Your task to perform on an android device: change your default location settings in chrome Image 0: 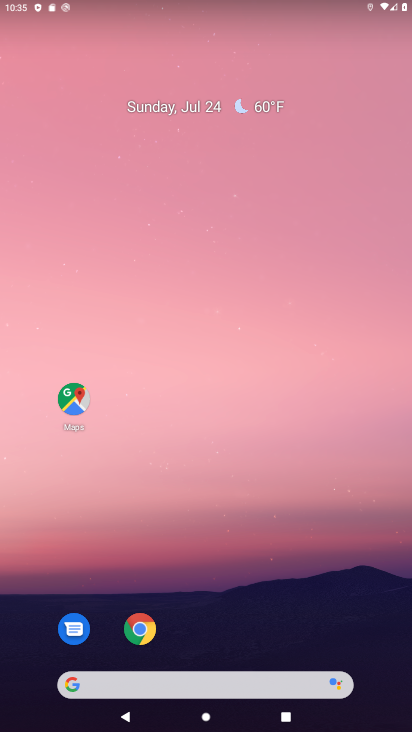
Step 0: click (251, 279)
Your task to perform on an android device: change your default location settings in chrome Image 1: 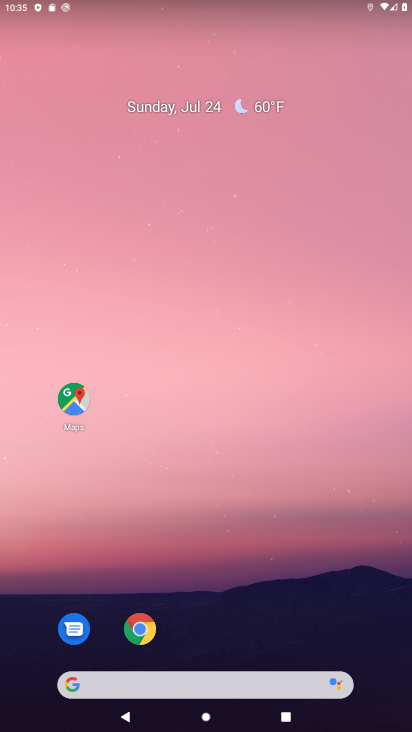
Step 1: drag from (239, 594) to (179, 234)
Your task to perform on an android device: change your default location settings in chrome Image 2: 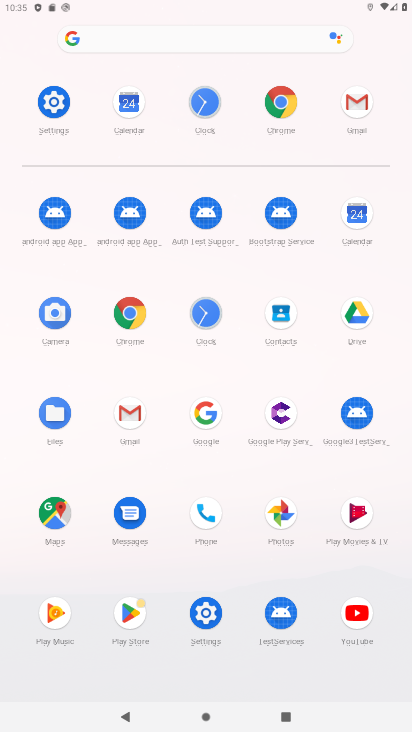
Step 2: click (136, 307)
Your task to perform on an android device: change your default location settings in chrome Image 3: 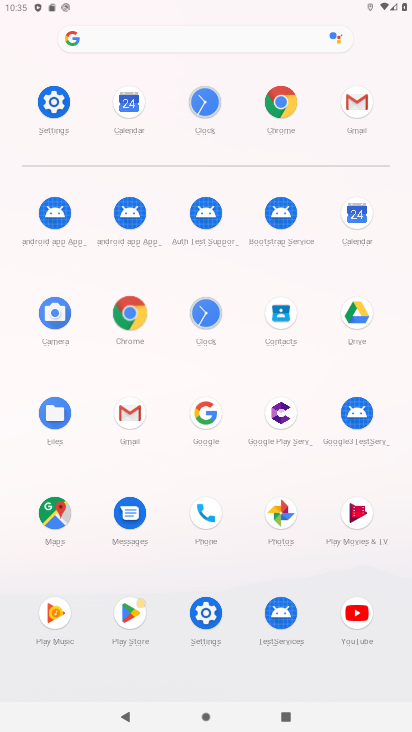
Step 3: click (135, 307)
Your task to perform on an android device: change your default location settings in chrome Image 4: 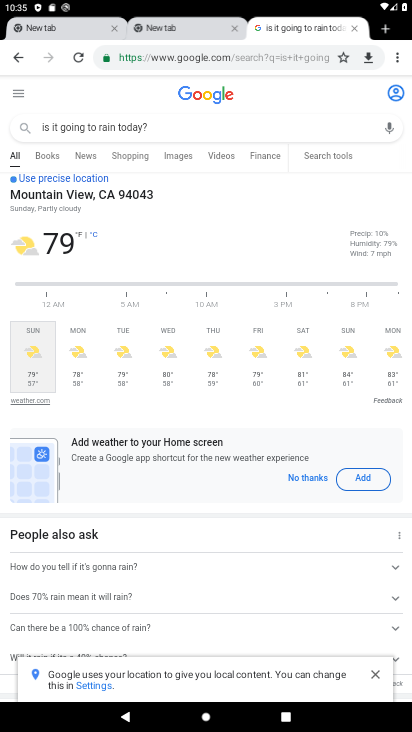
Step 4: click (15, 56)
Your task to perform on an android device: change your default location settings in chrome Image 5: 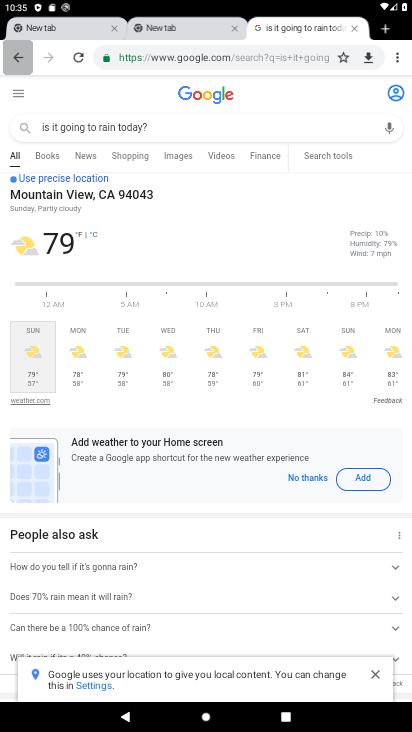
Step 5: click (15, 56)
Your task to perform on an android device: change your default location settings in chrome Image 6: 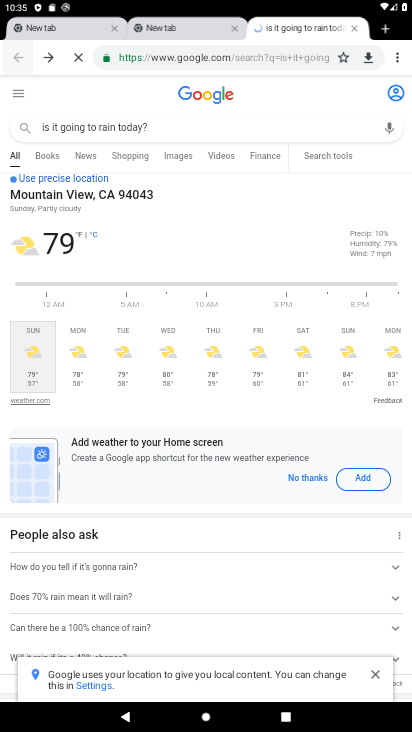
Step 6: click (14, 61)
Your task to perform on an android device: change your default location settings in chrome Image 7: 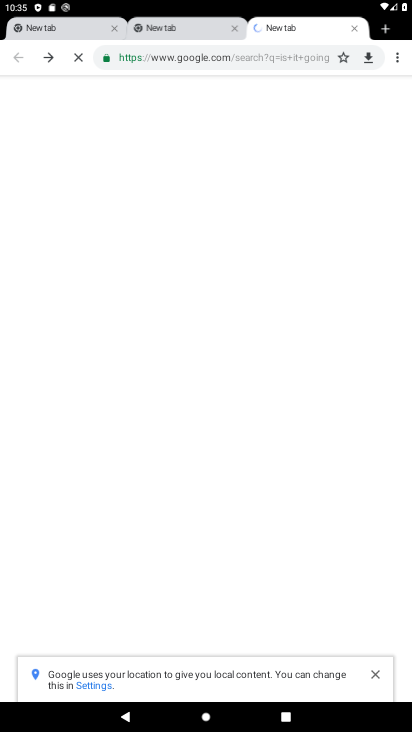
Step 7: click (21, 63)
Your task to perform on an android device: change your default location settings in chrome Image 8: 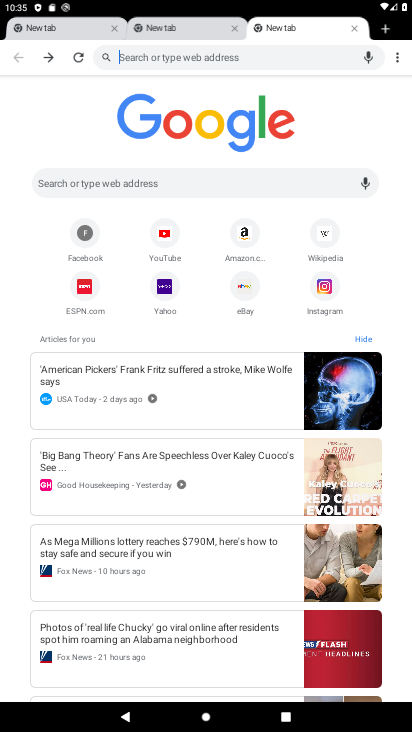
Step 8: drag from (391, 56) to (287, 259)
Your task to perform on an android device: change your default location settings in chrome Image 9: 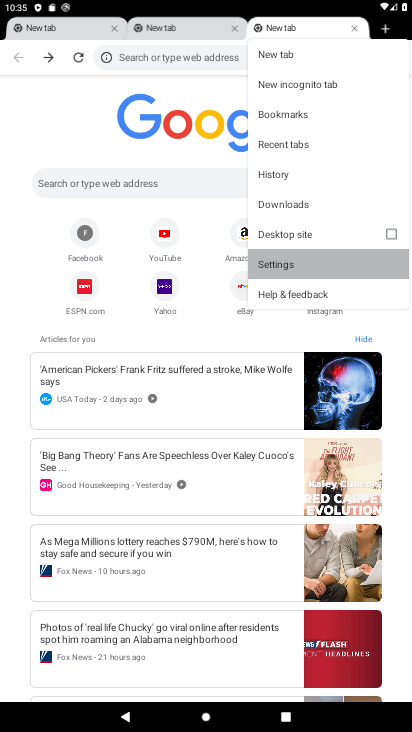
Step 9: click (288, 259)
Your task to perform on an android device: change your default location settings in chrome Image 10: 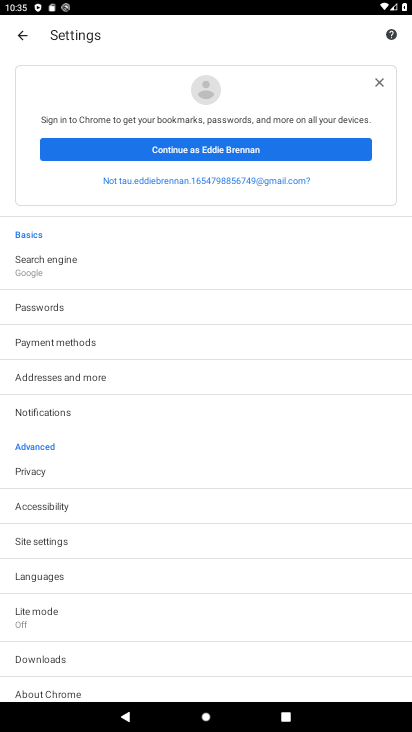
Step 10: click (38, 542)
Your task to perform on an android device: change your default location settings in chrome Image 11: 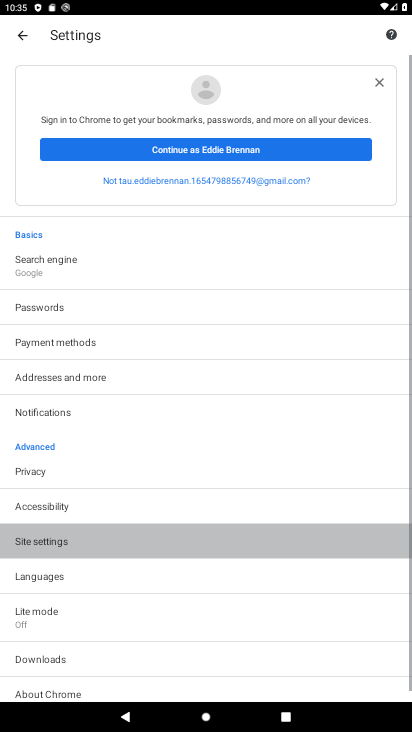
Step 11: click (41, 540)
Your task to perform on an android device: change your default location settings in chrome Image 12: 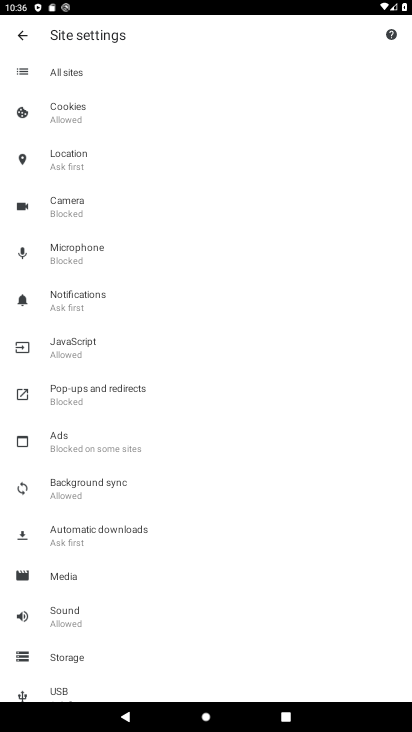
Step 12: click (70, 157)
Your task to perform on an android device: change your default location settings in chrome Image 13: 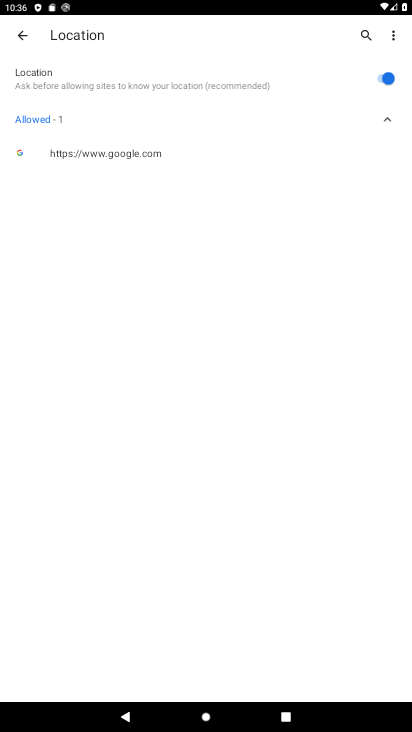
Step 13: click (382, 77)
Your task to perform on an android device: change your default location settings in chrome Image 14: 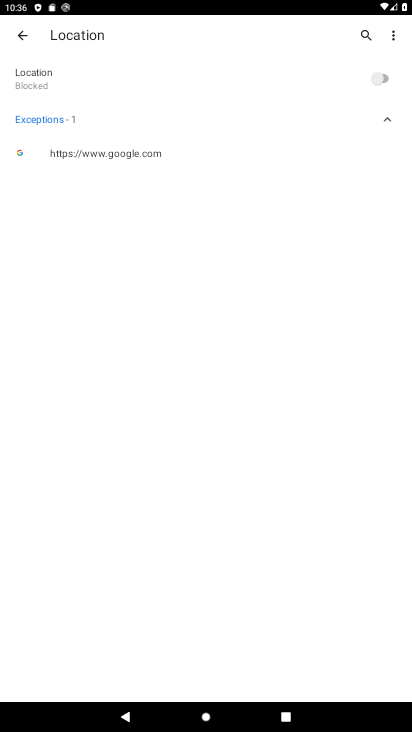
Step 14: task complete